Your task to perform on an android device: turn on bluetooth scan Image 0: 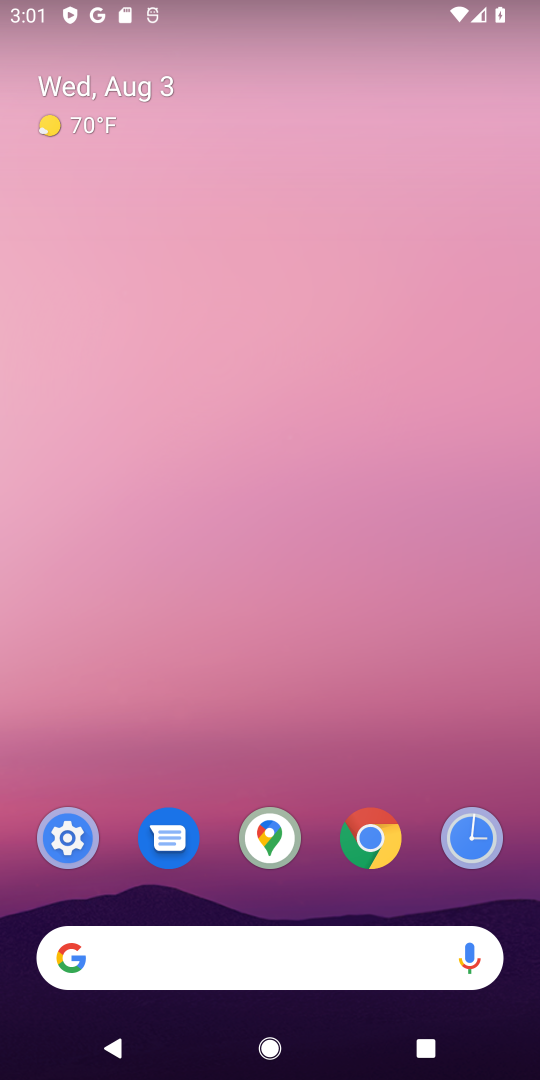
Step 0: click (65, 829)
Your task to perform on an android device: turn on bluetooth scan Image 1: 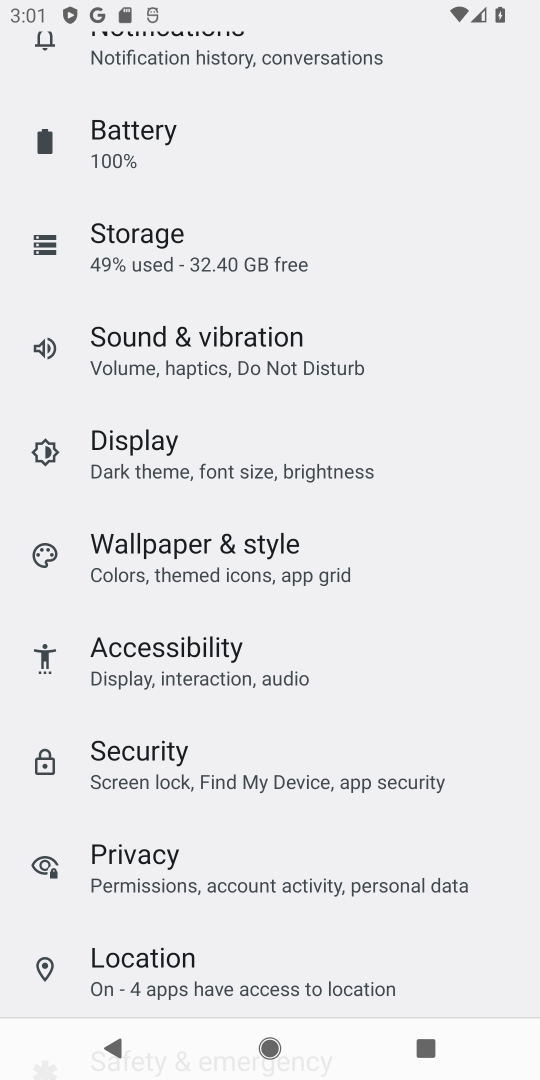
Step 1: click (215, 975)
Your task to perform on an android device: turn on bluetooth scan Image 2: 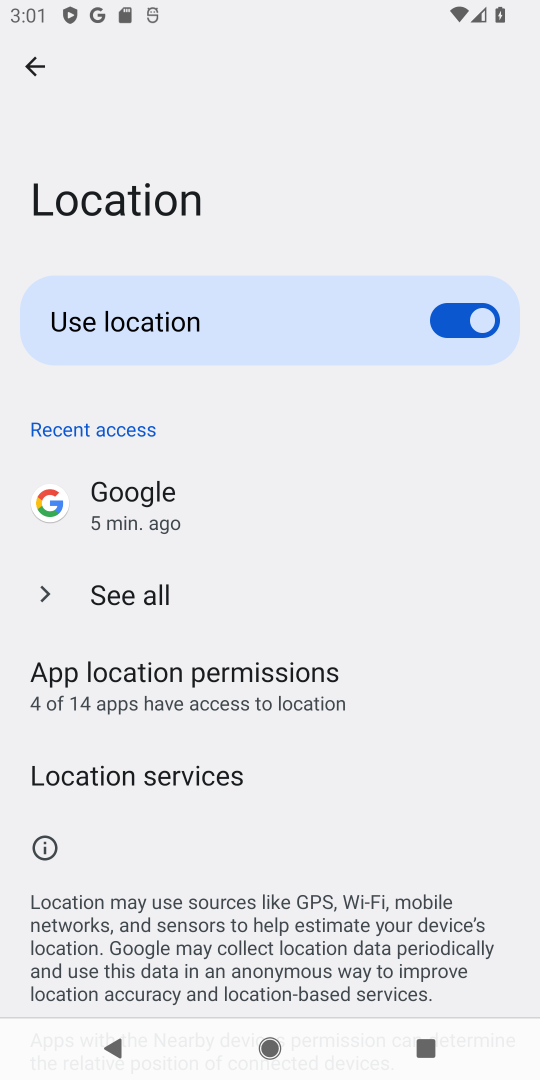
Step 2: click (191, 788)
Your task to perform on an android device: turn on bluetooth scan Image 3: 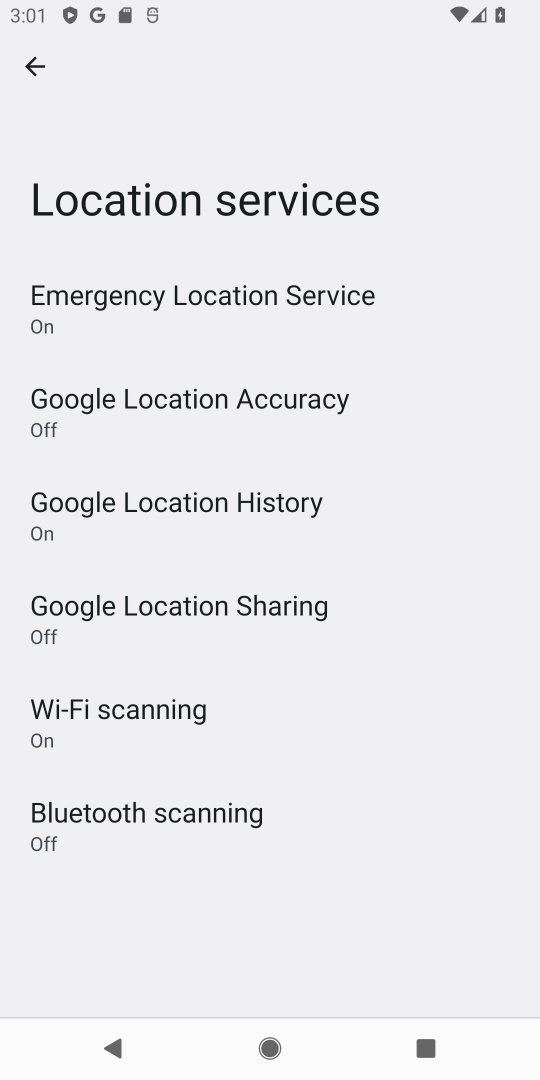
Step 3: click (192, 810)
Your task to perform on an android device: turn on bluetooth scan Image 4: 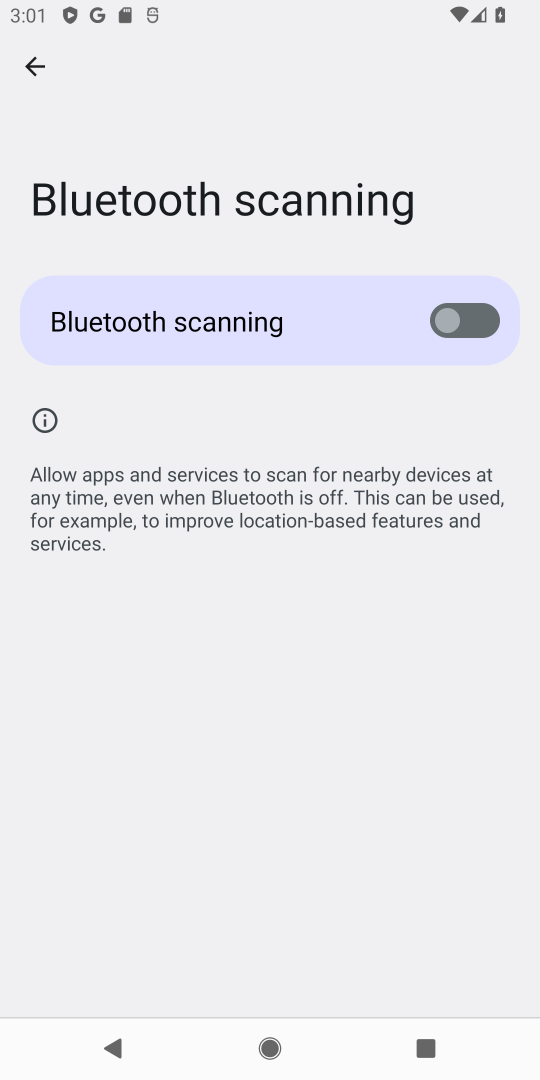
Step 4: click (447, 321)
Your task to perform on an android device: turn on bluetooth scan Image 5: 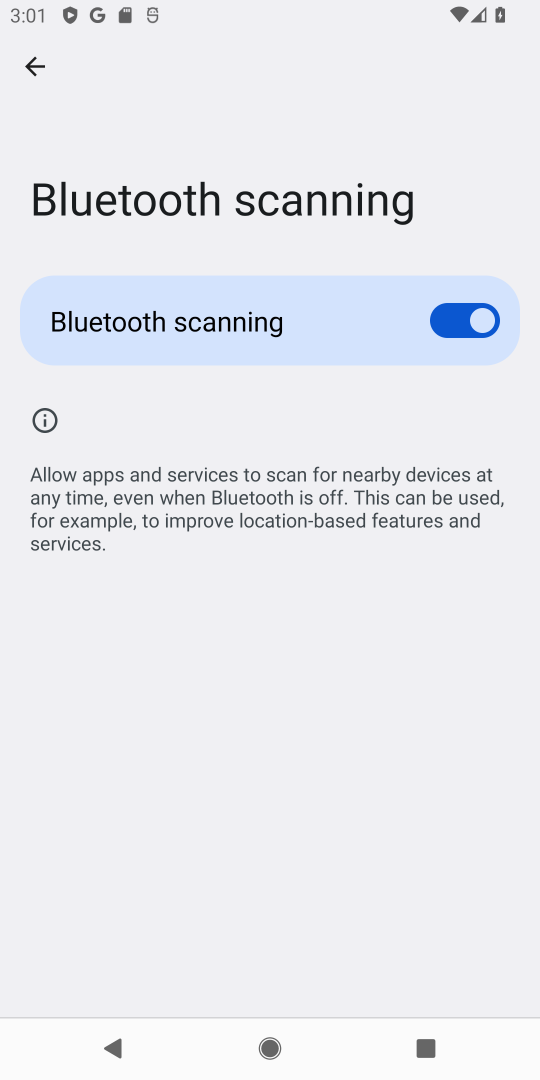
Step 5: task complete